Your task to perform on an android device: toggle improve location accuracy Image 0: 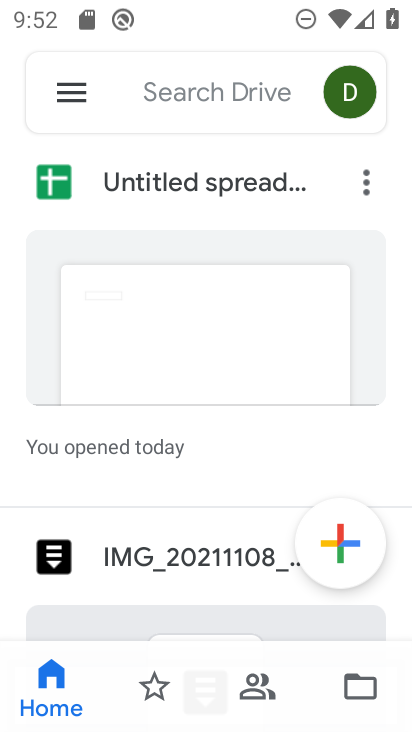
Step 0: press home button
Your task to perform on an android device: toggle improve location accuracy Image 1: 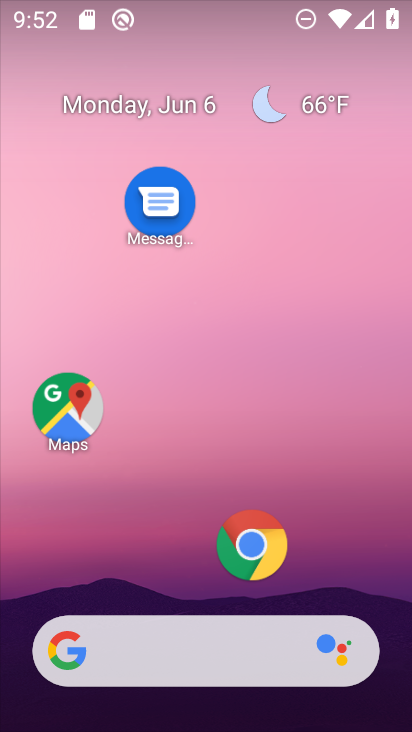
Step 1: drag from (187, 569) to (120, 254)
Your task to perform on an android device: toggle improve location accuracy Image 2: 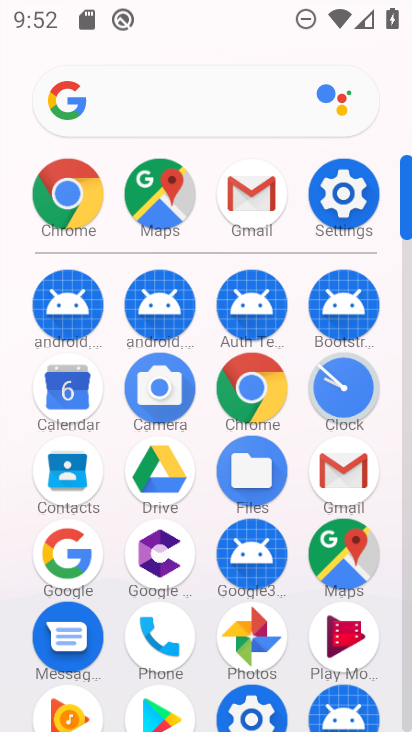
Step 2: click (344, 194)
Your task to perform on an android device: toggle improve location accuracy Image 3: 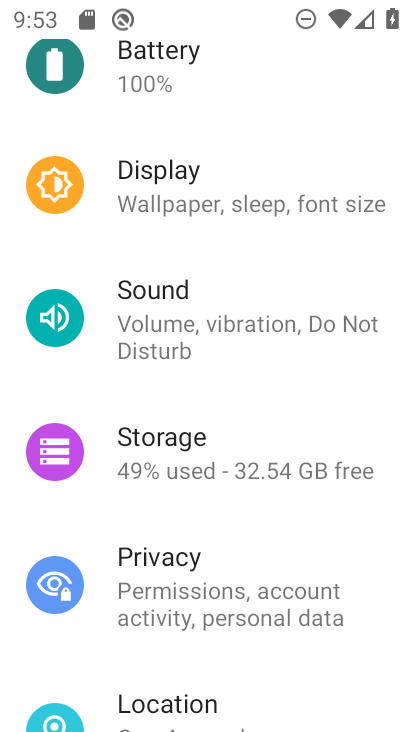
Step 3: drag from (243, 657) to (203, 346)
Your task to perform on an android device: toggle improve location accuracy Image 4: 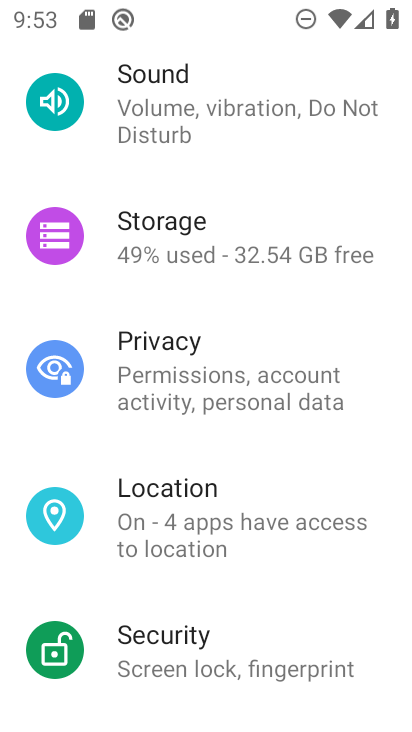
Step 4: click (199, 529)
Your task to perform on an android device: toggle improve location accuracy Image 5: 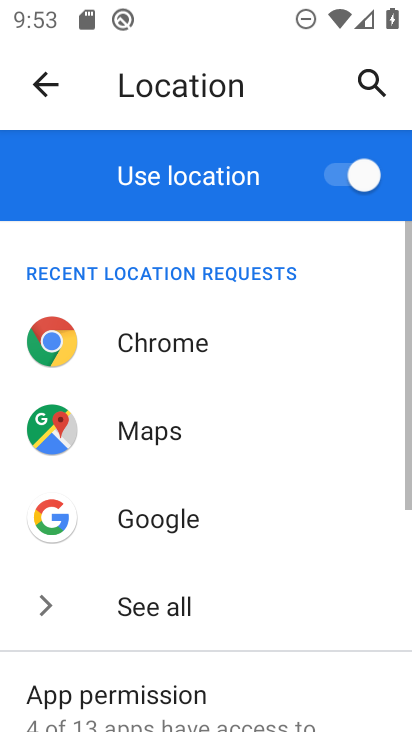
Step 5: drag from (144, 634) to (88, 256)
Your task to perform on an android device: toggle improve location accuracy Image 6: 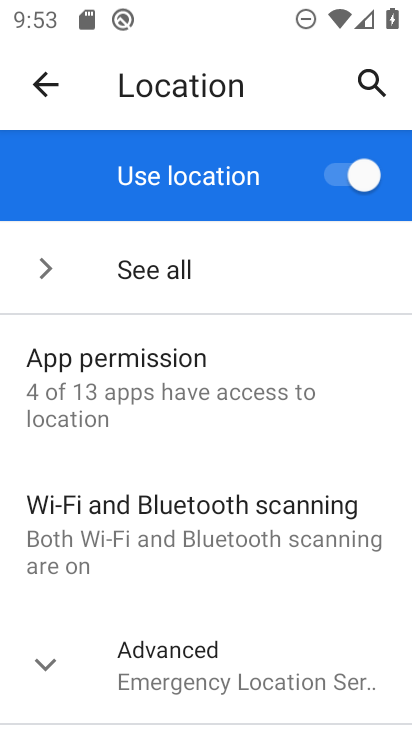
Step 6: click (236, 660)
Your task to perform on an android device: toggle improve location accuracy Image 7: 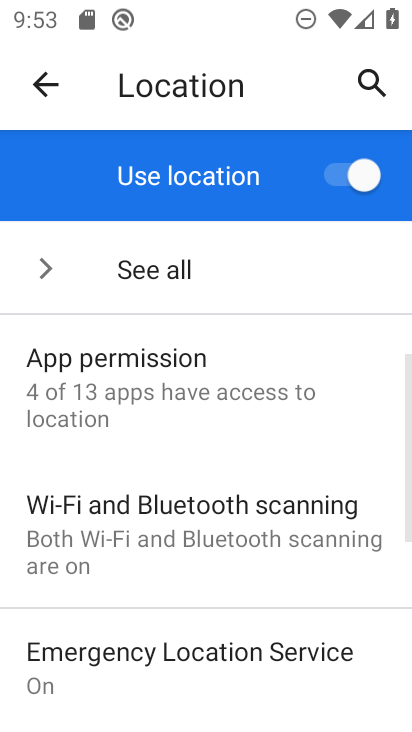
Step 7: drag from (217, 637) to (115, 302)
Your task to perform on an android device: toggle improve location accuracy Image 8: 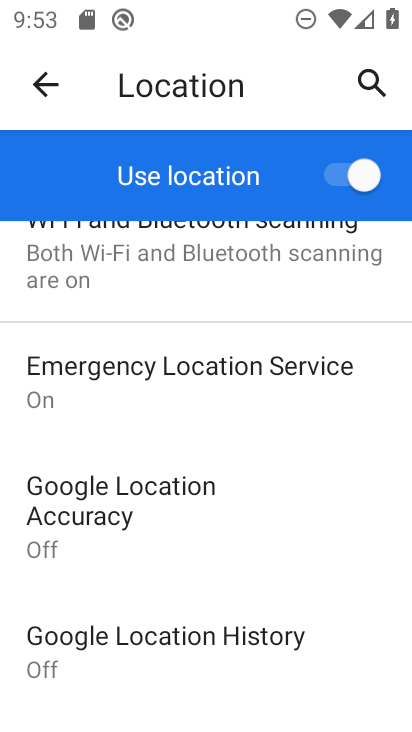
Step 8: click (59, 535)
Your task to perform on an android device: toggle improve location accuracy Image 9: 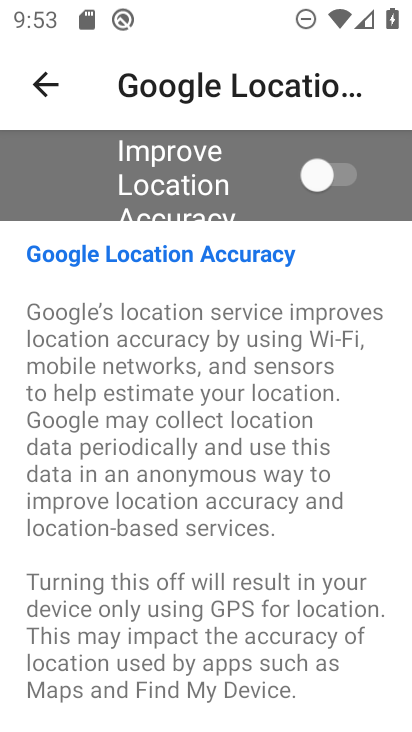
Step 9: task complete